Your task to perform on an android device: allow notifications from all sites in the chrome app Image 0: 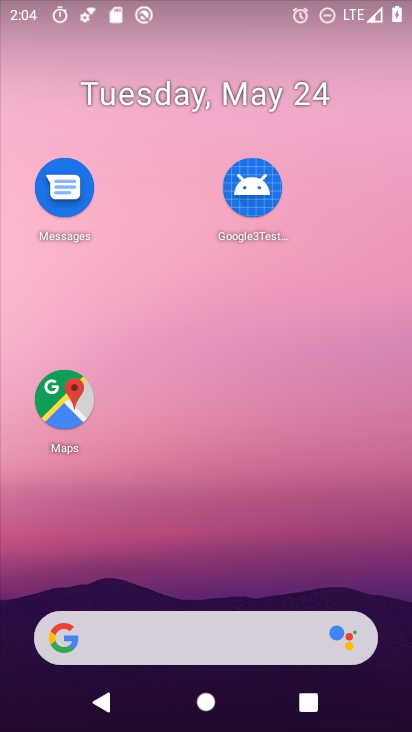
Step 0: drag from (223, 588) to (238, 13)
Your task to perform on an android device: allow notifications from all sites in the chrome app Image 1: 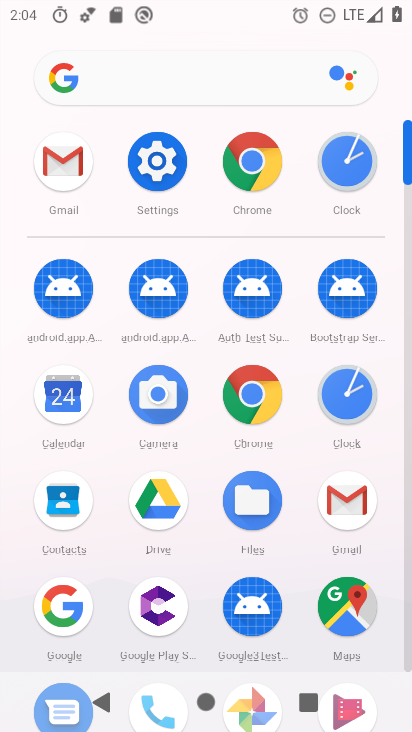
Step 1: click (248, 199)
Your task to perform on an android device: allow notifications from all sites in the chrome app Image 2: 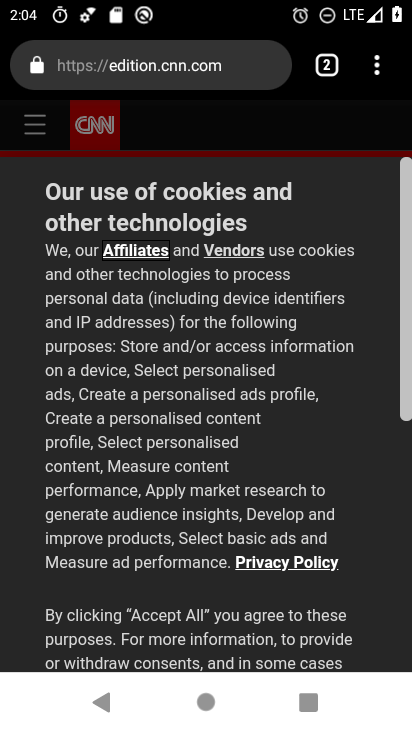
Step 2: click (380, 74)
Your task to perform on an android device: allow notifications from all sites in the chrome app Image 3: 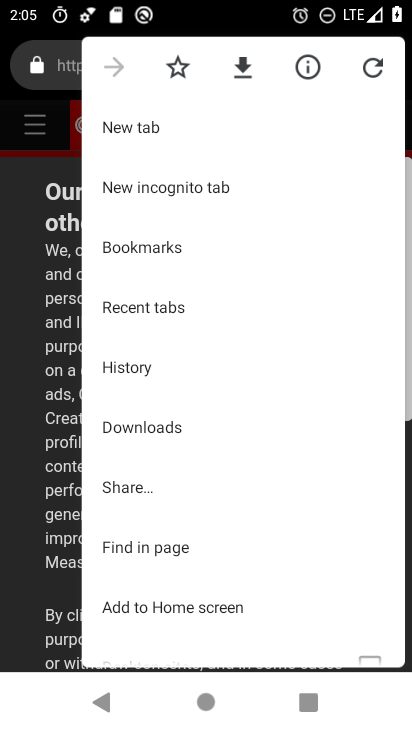
Step 3: drag from (182, 573) to (174, 250)
Your task to perform on an android device: allow notifications from all sites in the chrome app Image 4: 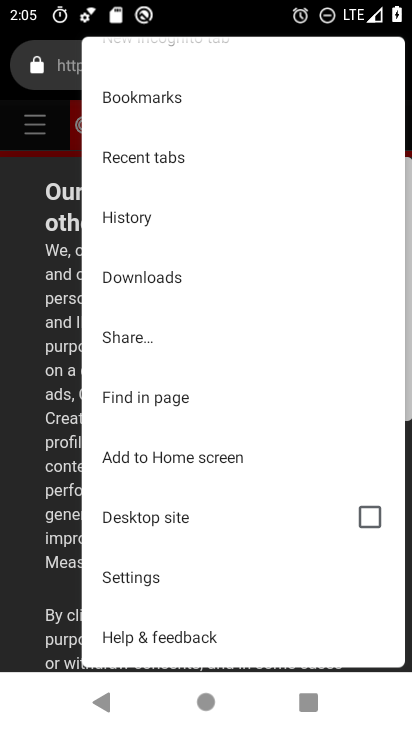
Step 4: click (147, 593)
Your task to perform on an android device: allow notifications from all sites in the chrome app Image 5: 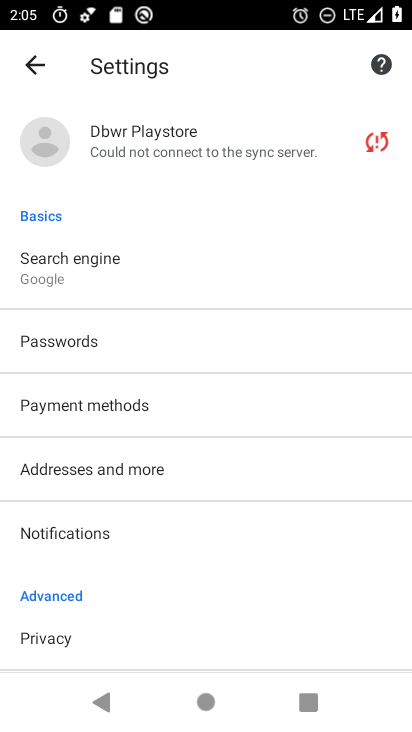
Step 5: drag from (104, 618) to (112, 229)
Your task to perform on an android device: allow notifications from all sites in the chrome app Image 6: 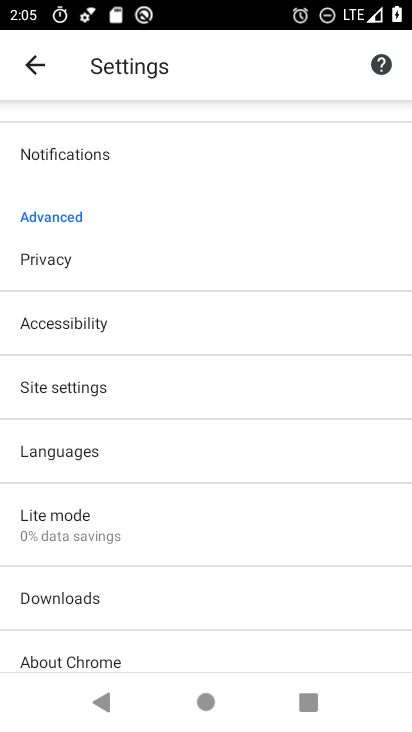
Step 6: drag from (118, 593) to (129, 383)
Your task to perform on an android device: allow notifications from all sites in the chrome app Image 7: 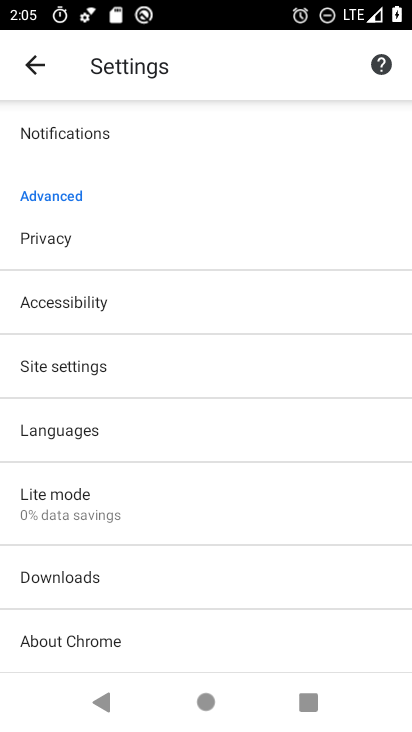
Step 7: click (158, 257)
Your task to perform on an android device: allow notifications from all sites in the chrome app Image 8: 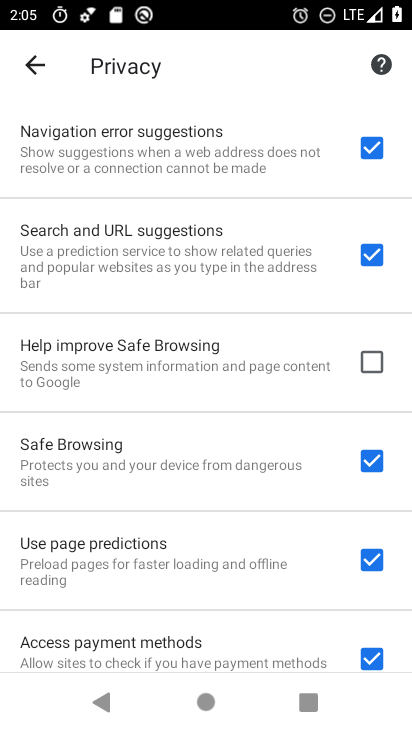
Step 8: click (36, 74)
Your task to perform on an android device: allow notifications from all sites in the chrome app Image 9: 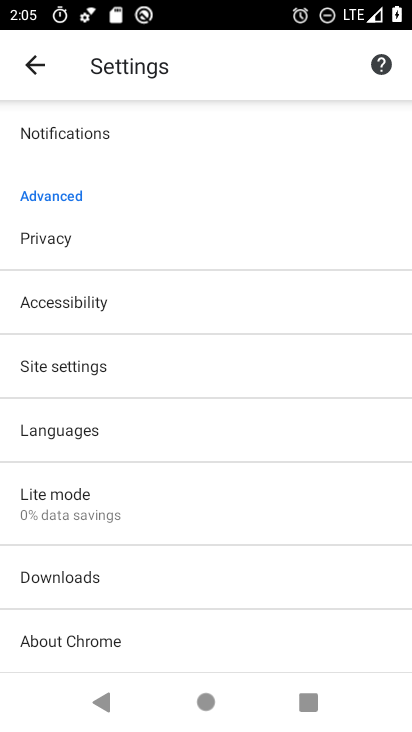
Step 9: drag from (148, 480) to (247, 717)
Your task to perform on an android device: allow notifications from all sites in the chrome app Image 10: 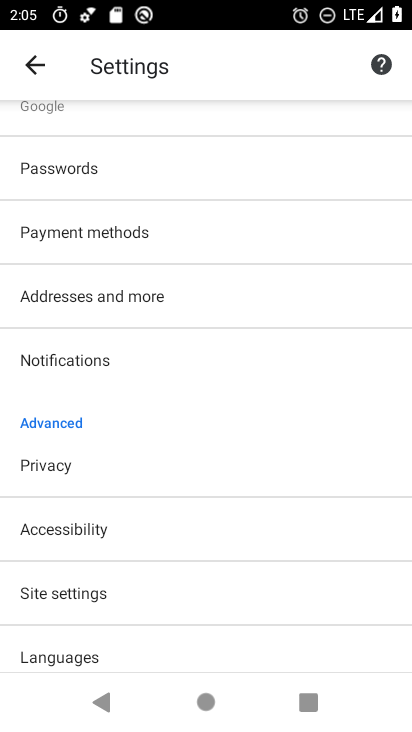
Step 10: click (70, 355)
Your task to perform on an android device: allow notifications from all sites in the chrome app Image 11: 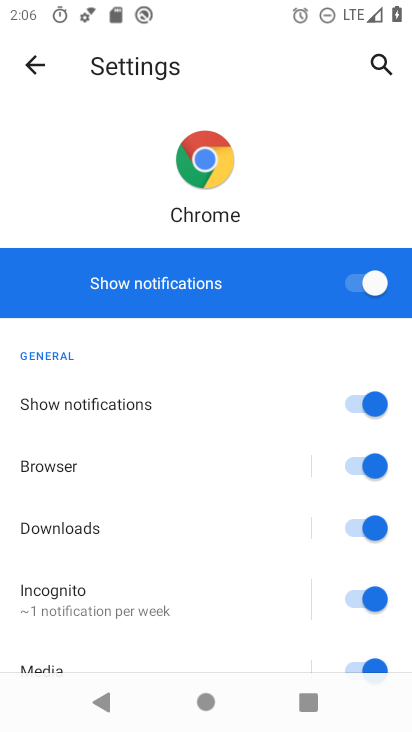
Step 11: task complete